Your task to perform on an android device: Add panasonic triple a to the cart on bestbuy, then select checkout. Image 0: 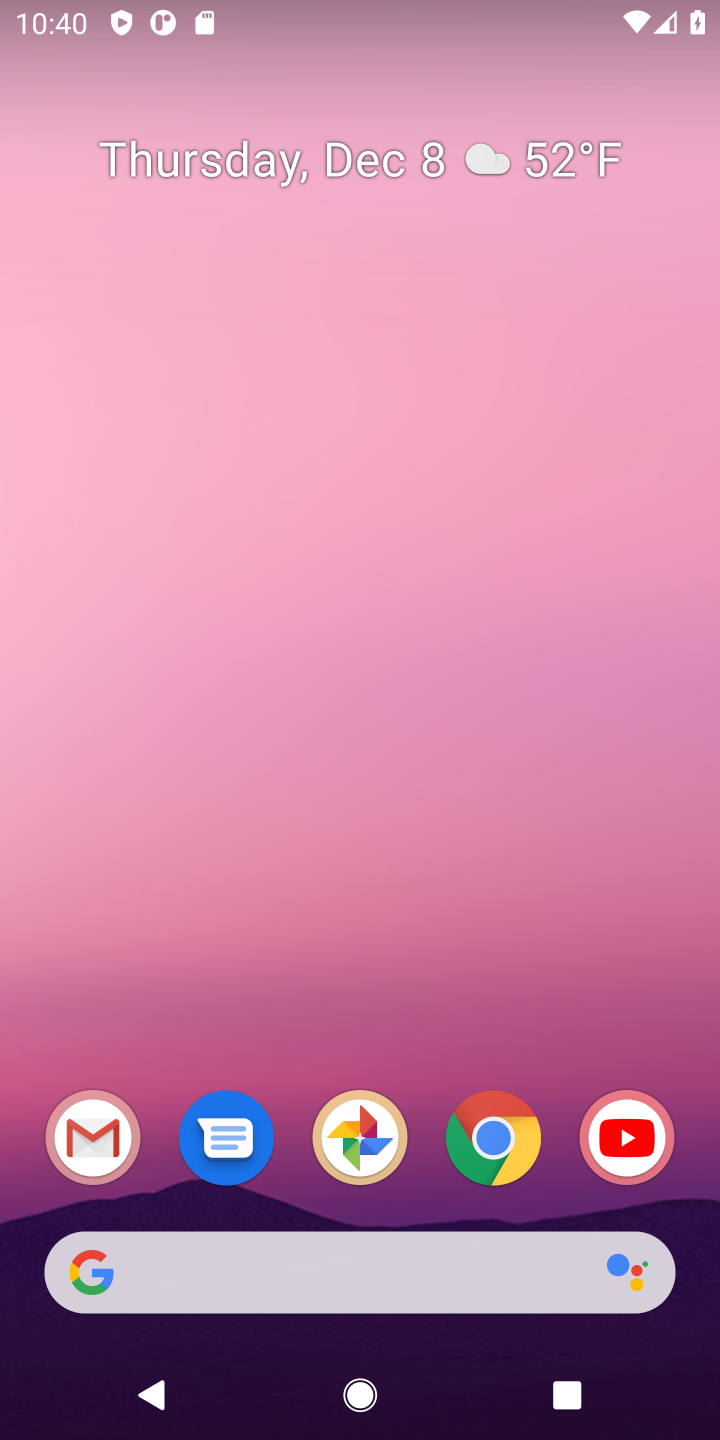
Step 0: click (502, 1135)
Your task to perform on an android device: Add panasonic triple a to the cart on bestbuy, then select checkout. Image 1: 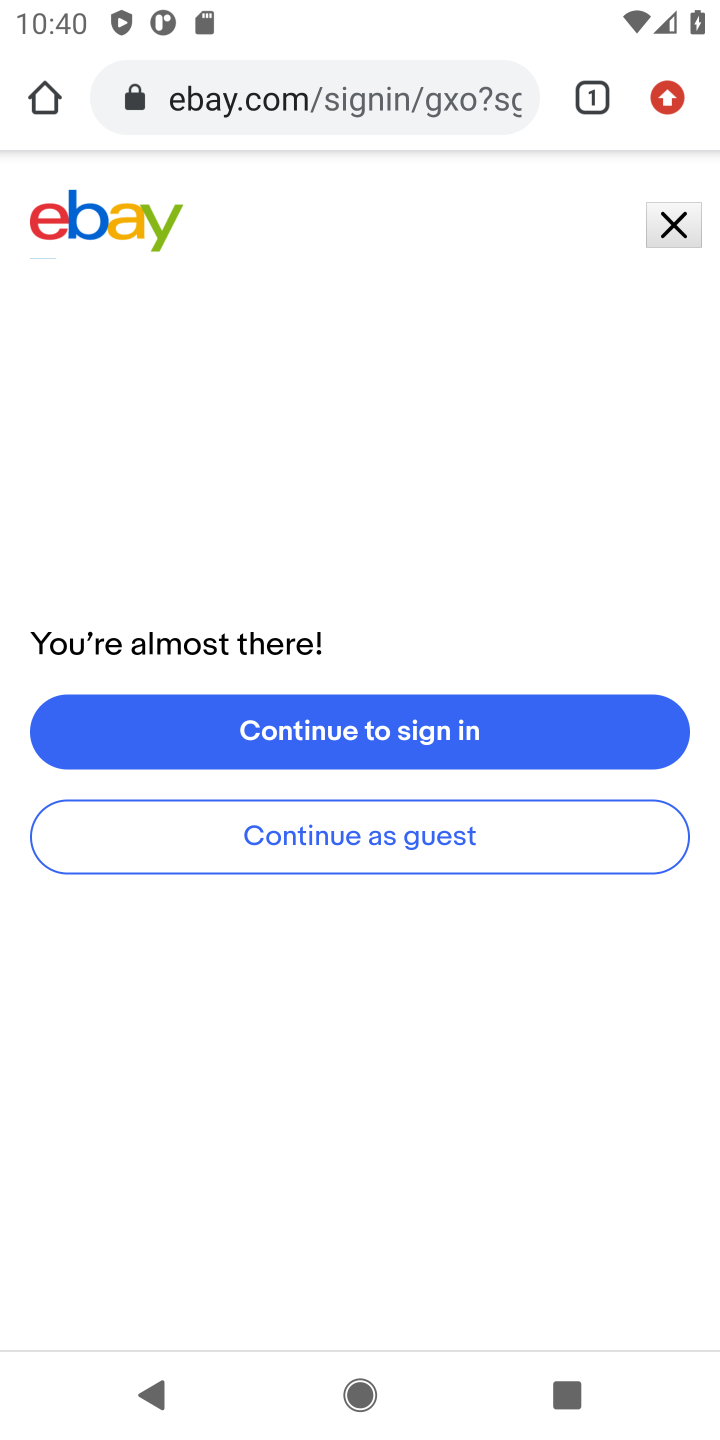
Step 1: click (339, 93)
Your task to perform on an android device: Add panasonic triple a to the cart on bestbuy, then select checkout. Image 2: 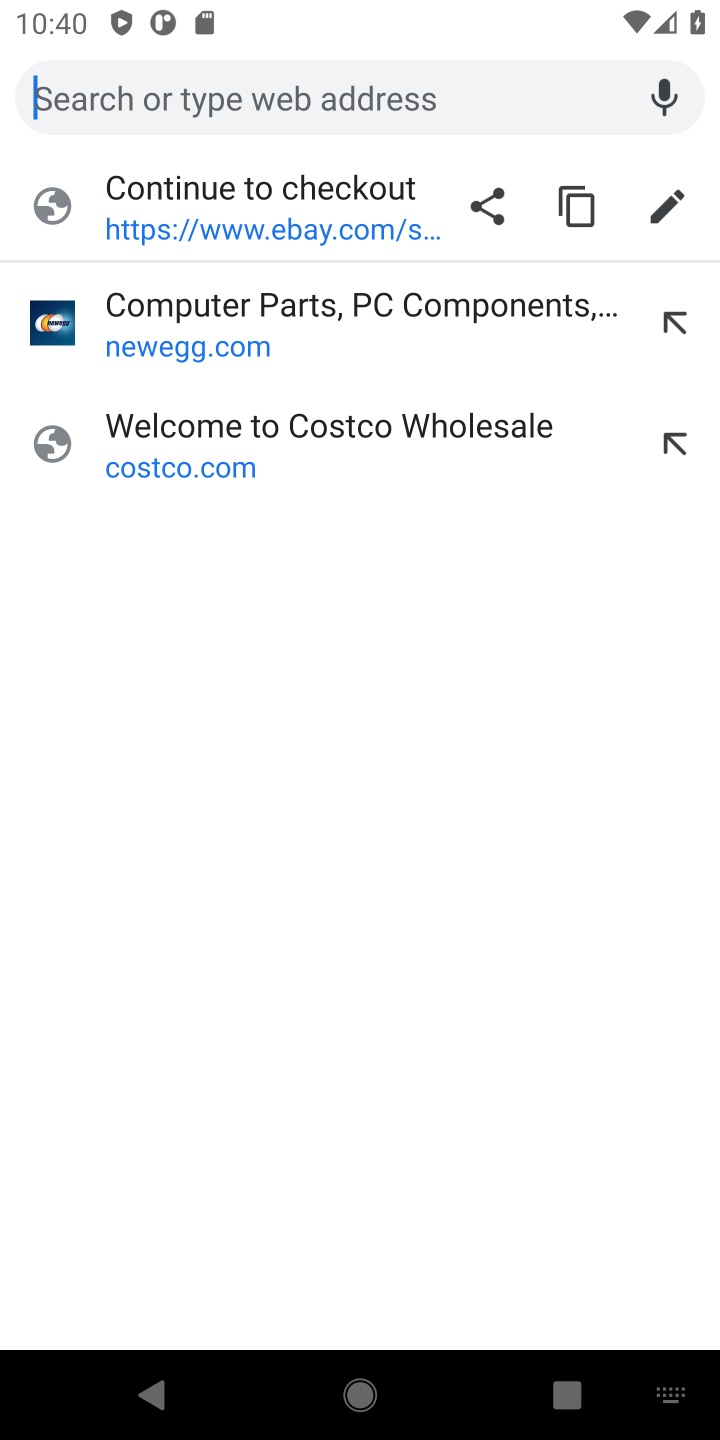
Step 2: type "bestbuy"
Your task to perform on an android device: Add panasonic triple a to the cart on bestbuy, then select checkout. Image 3: 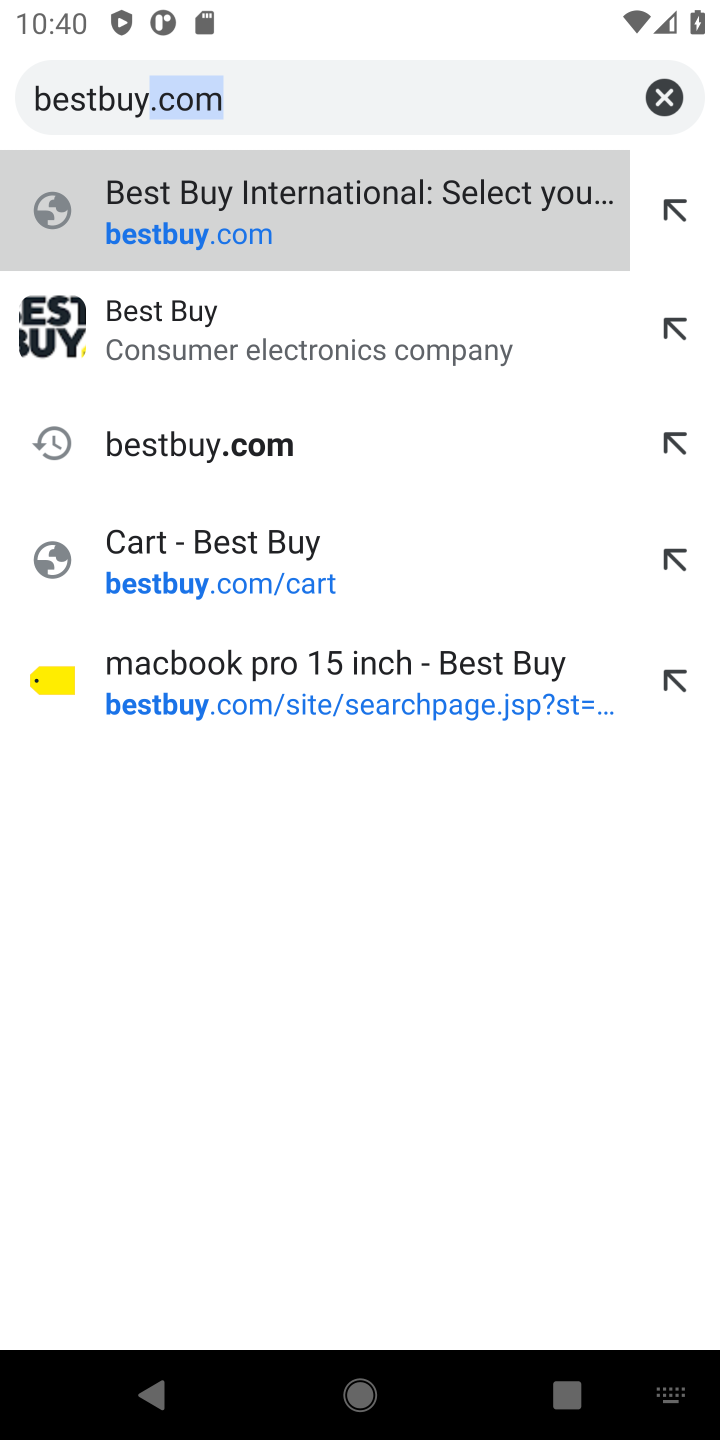
Step 3: press enter
Your task to perform on an android device: Add panasonic triple a to the cart on bestbuy, then select checkout. Image 4: 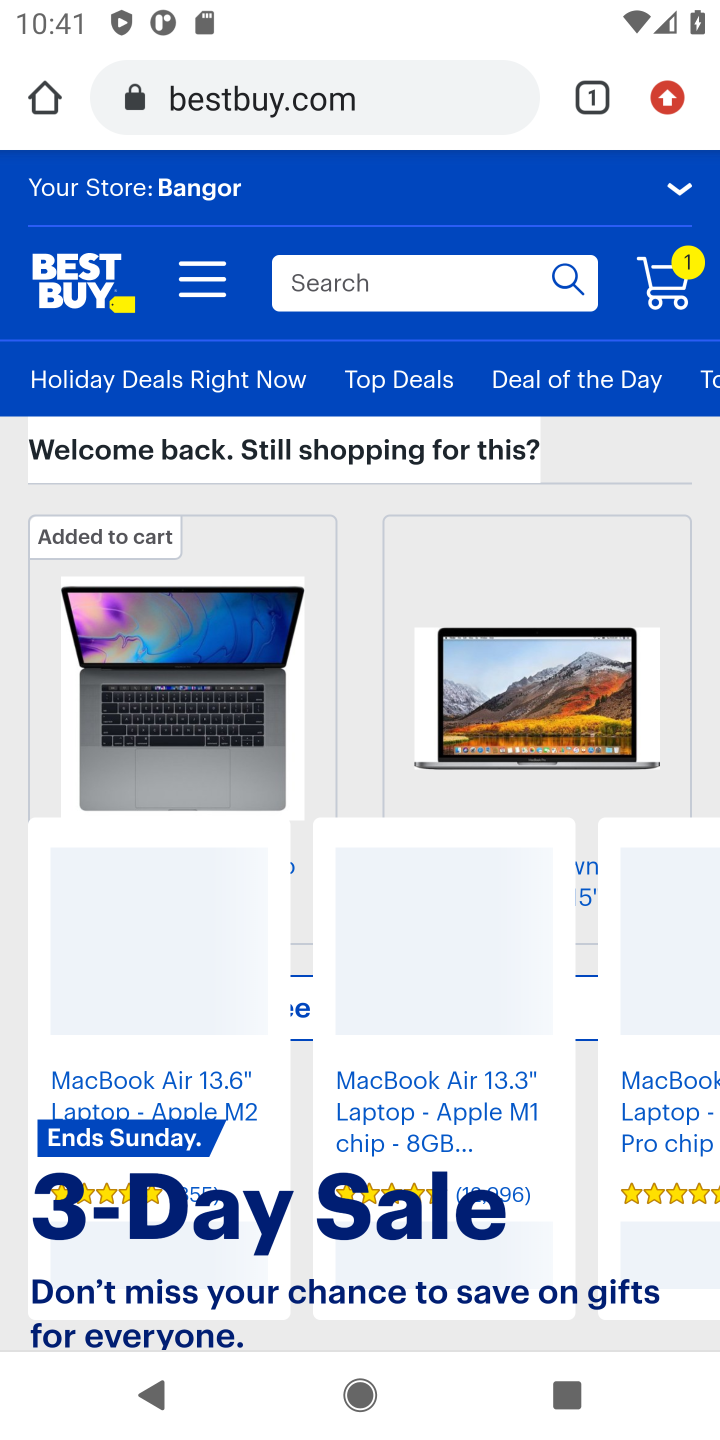
Step 4: click (553, 282)
Your task to perform on an android device: Add panasonic triple a to the cart on bestbuy, then select checkout. Image 5: 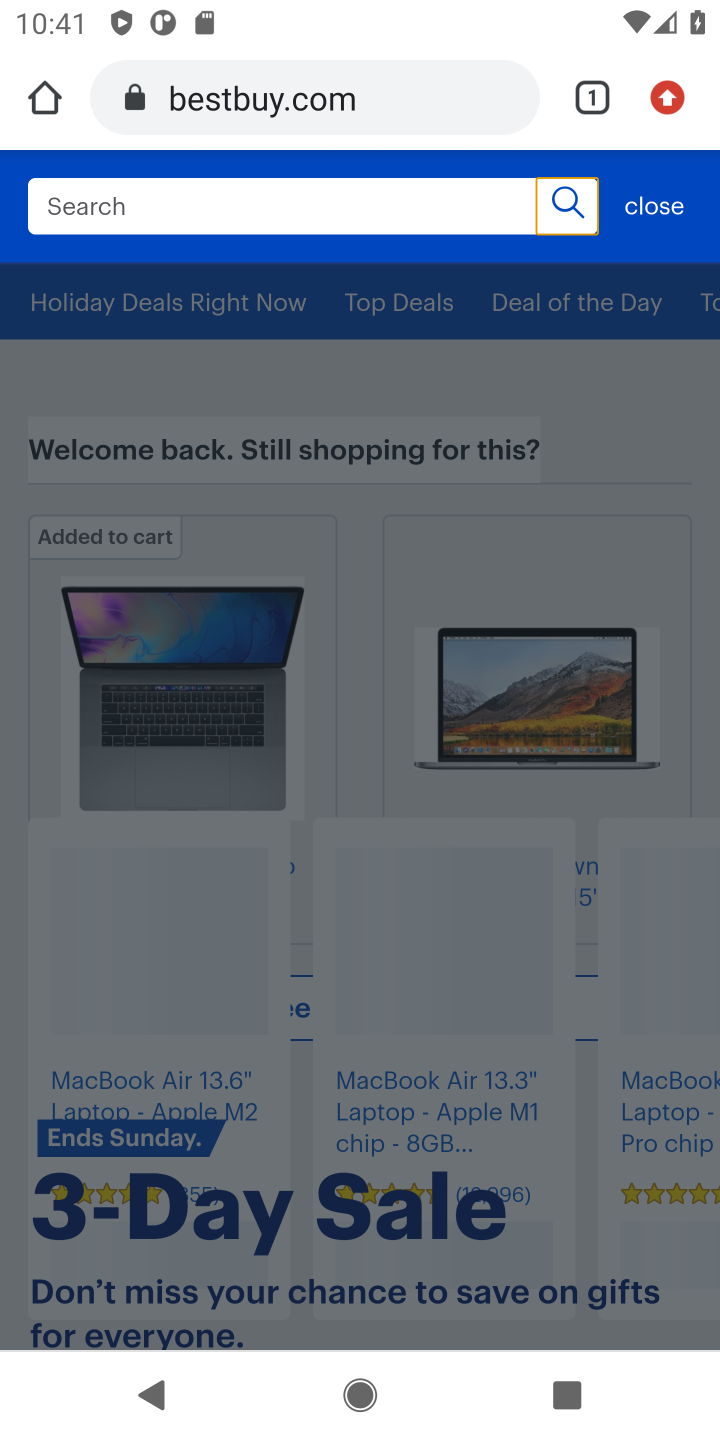
Step 5: press enter
Your task to perform on an android device: Add panasonic triple a to the cart on bestbuy, then select checkout. Image 6: 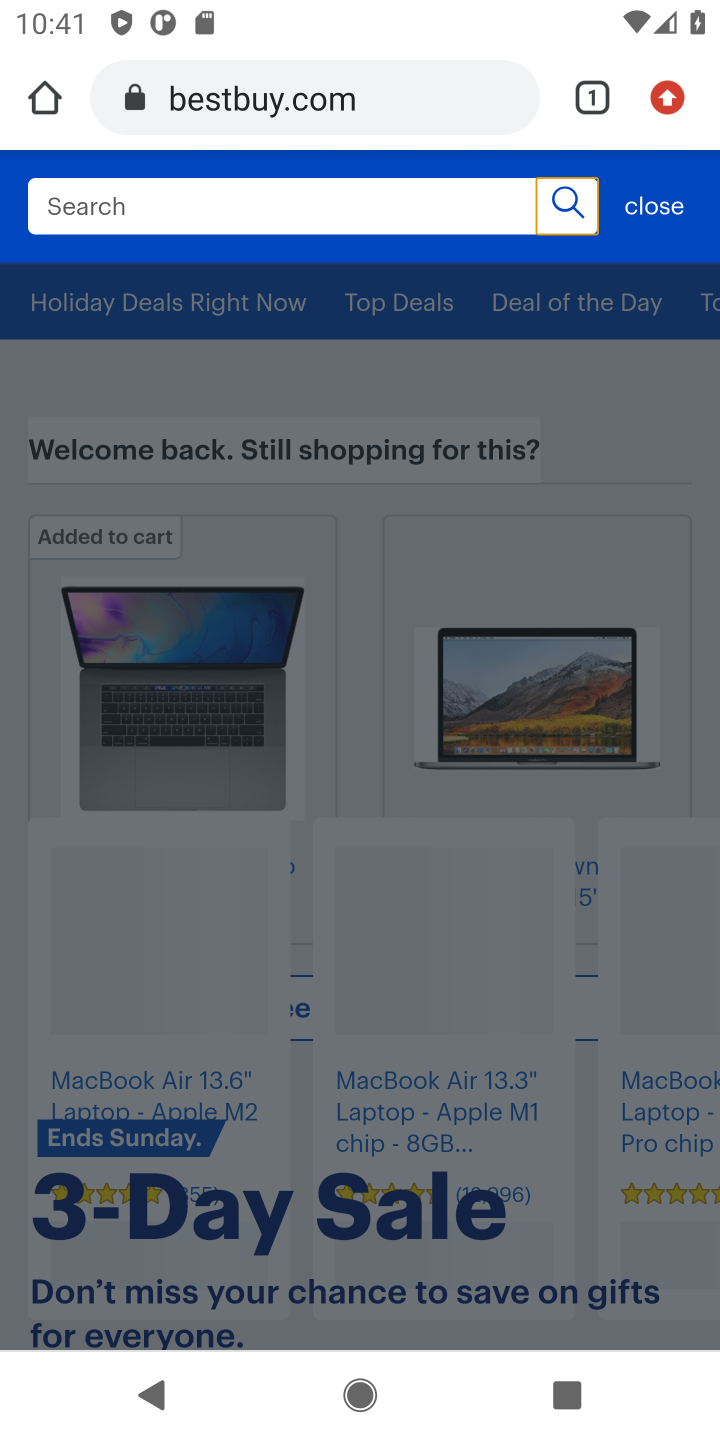
Step 6: type "panasonic triple a"
Your task to perform on an android device: Add panasonic triple a to the cart on bestbuy, then select checkout. Image 7: 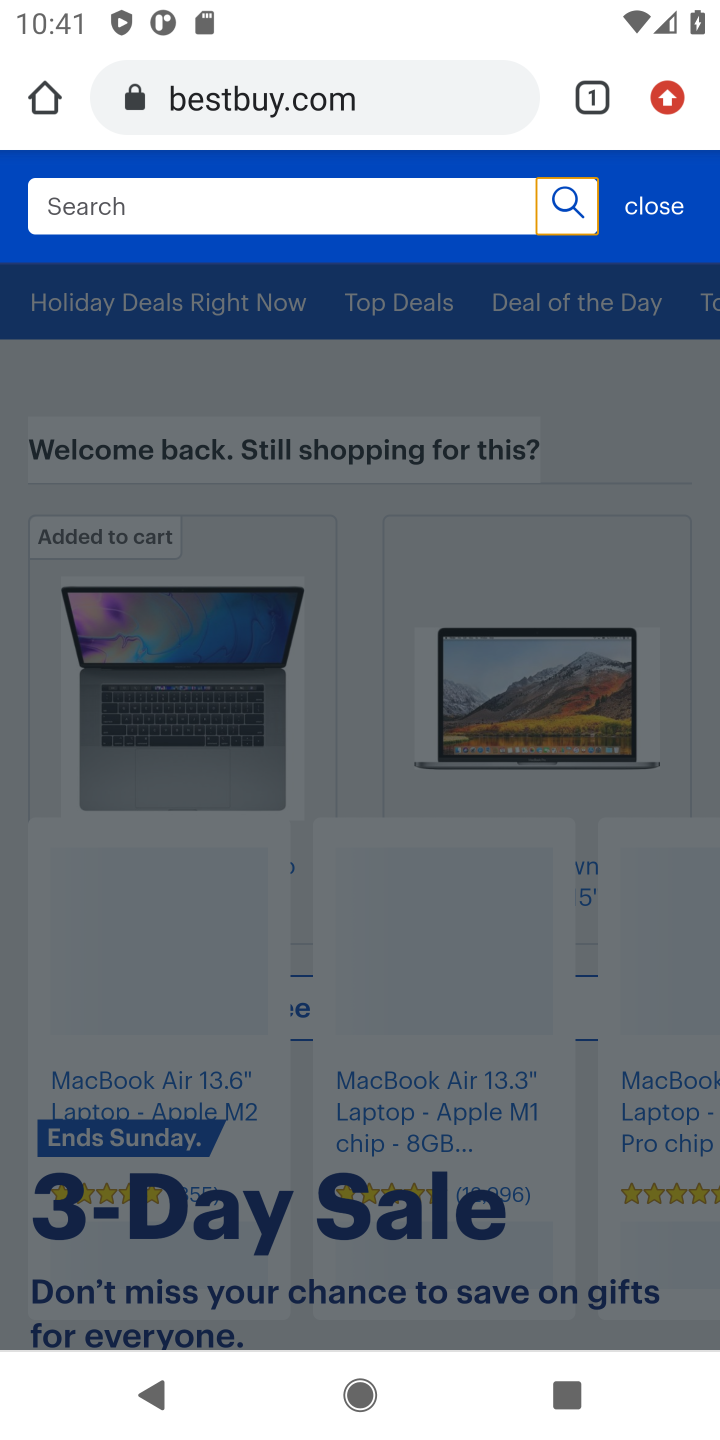
Step 7: click (379, 212)
Your task to perform on an android device: Add panasonic triple a to the cart on bestbuy, then select checkout. Image 8: 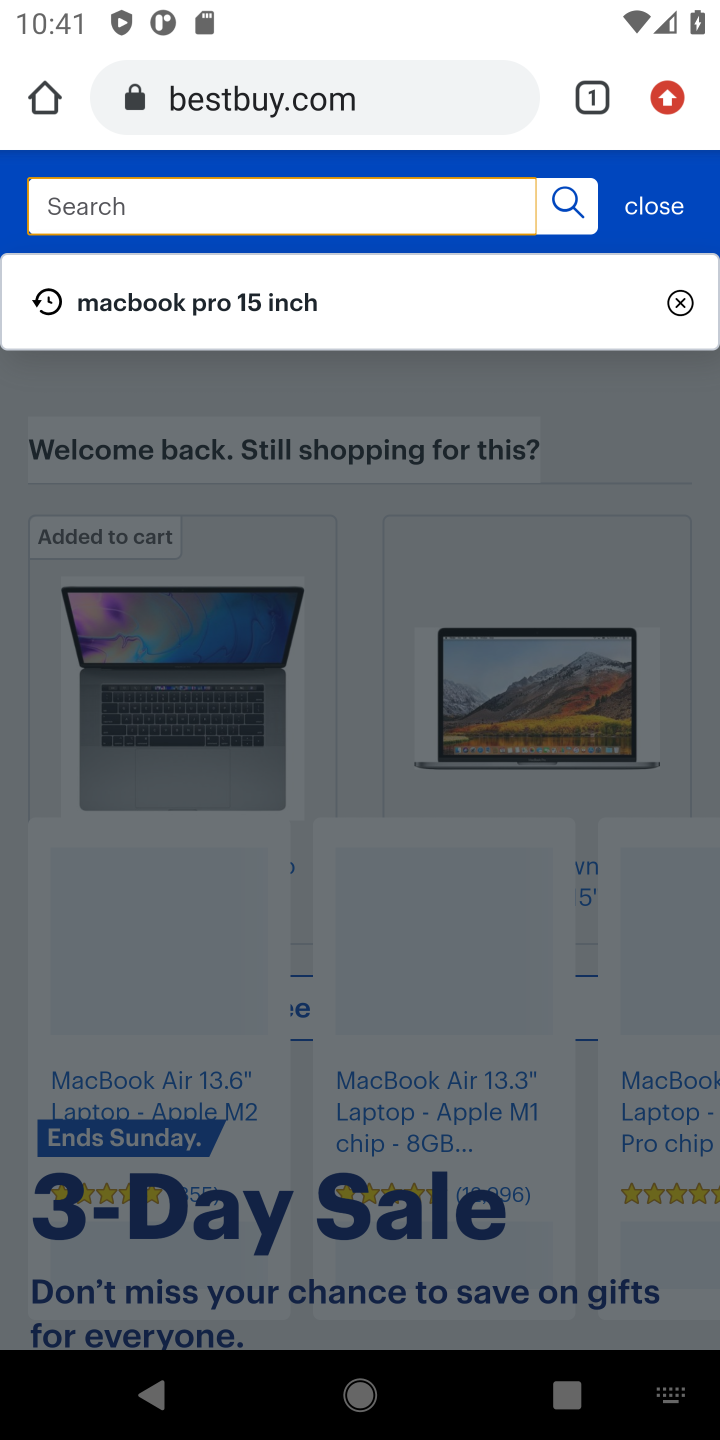
Step 8: type "panasonic triple a"
Your task to perform on an android device: Add panasonic triple a to the cart on bestbuy, then select checkout. Image 9: 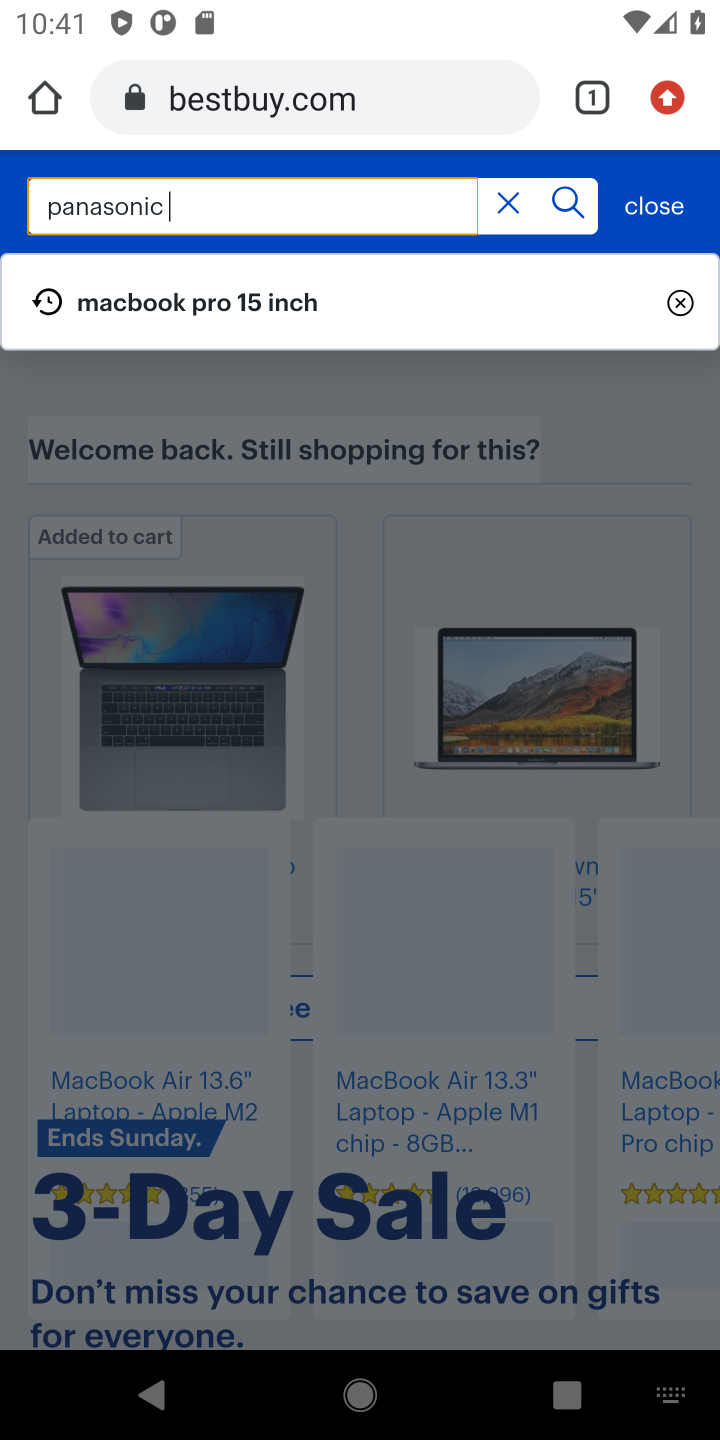
Step 9: press enter
Your task to perform on an android device: Add panasonic triple a to the cart on bestbuy, then select checkout. Image 10: 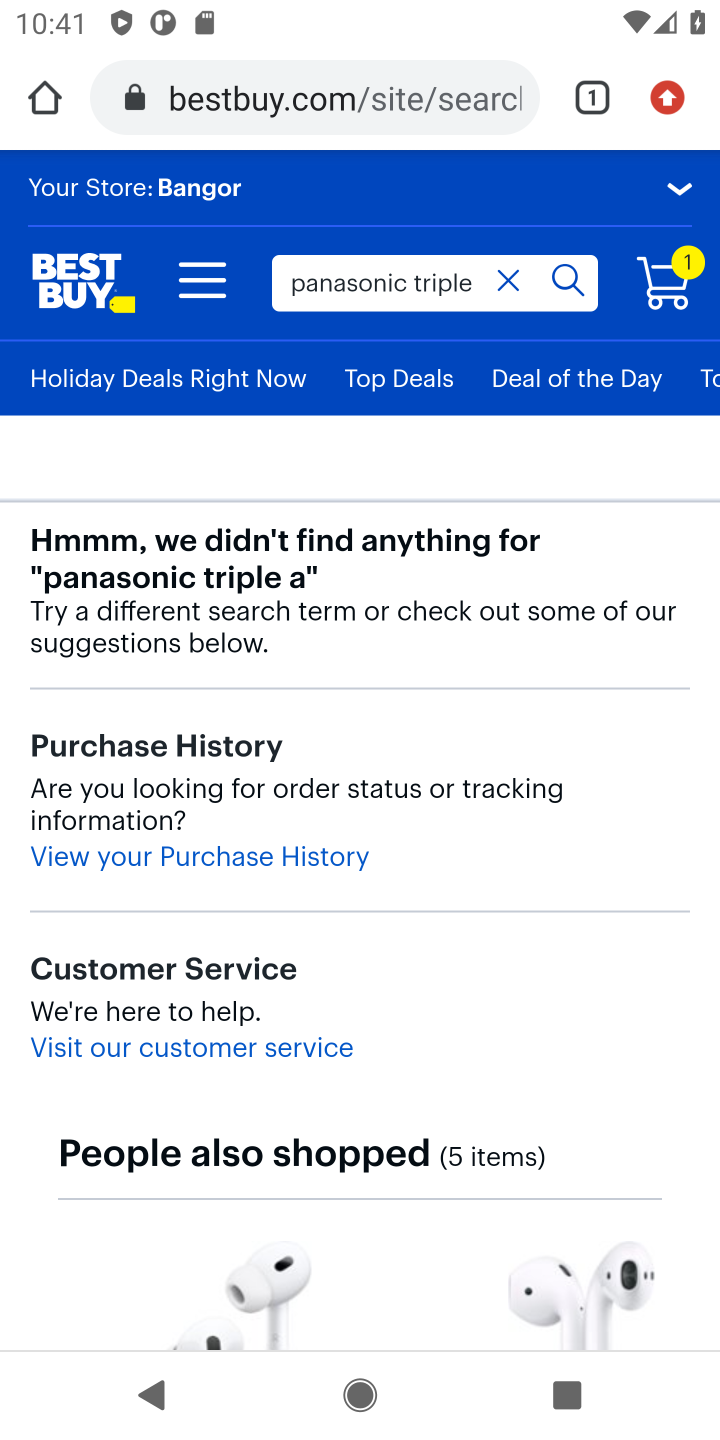
Step 10: click (506, 280)
Your task to perform on an android device: Add panasonic triple a to the cart on bestbuy, then select checkout. Image 11: 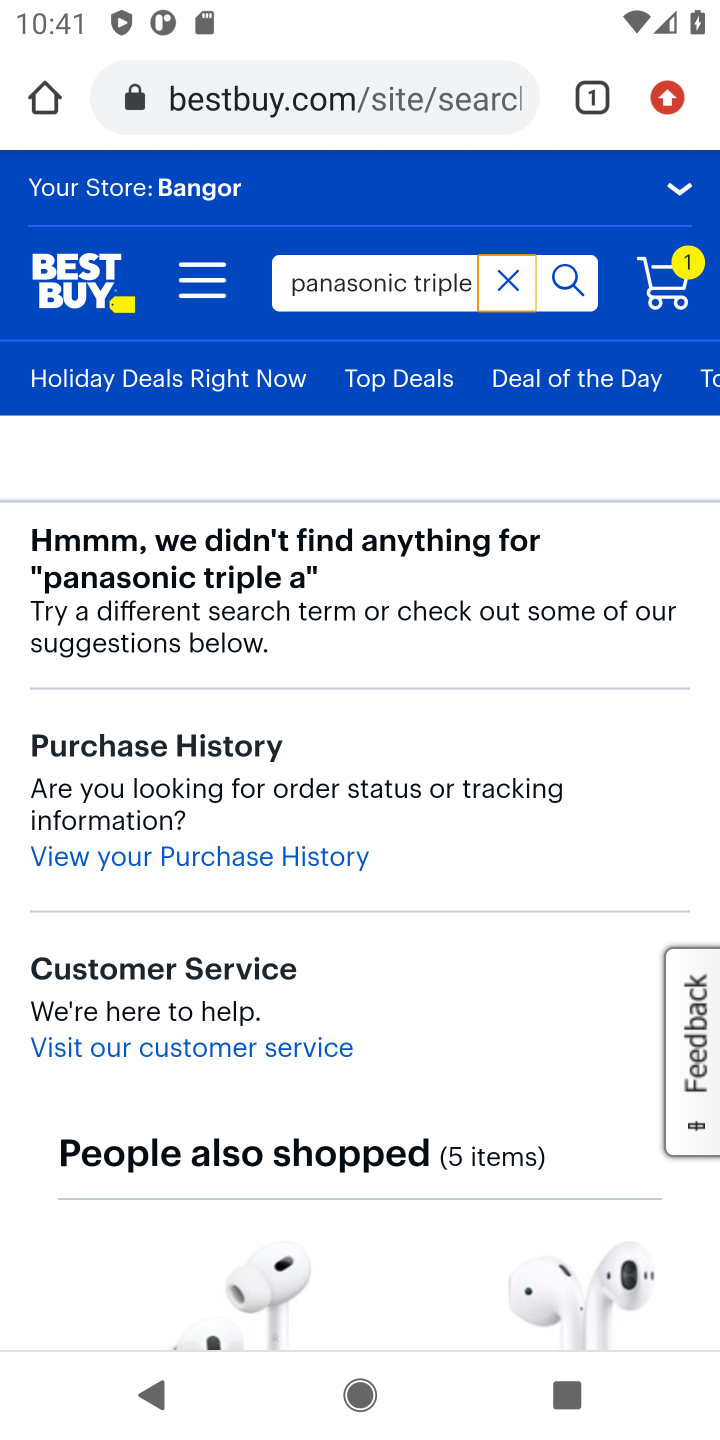
Step 11: click (506, 280)
Your task to perform on an android device: Add panasonic triple a to the cart on bestbuy, then select checkout. Image 12: 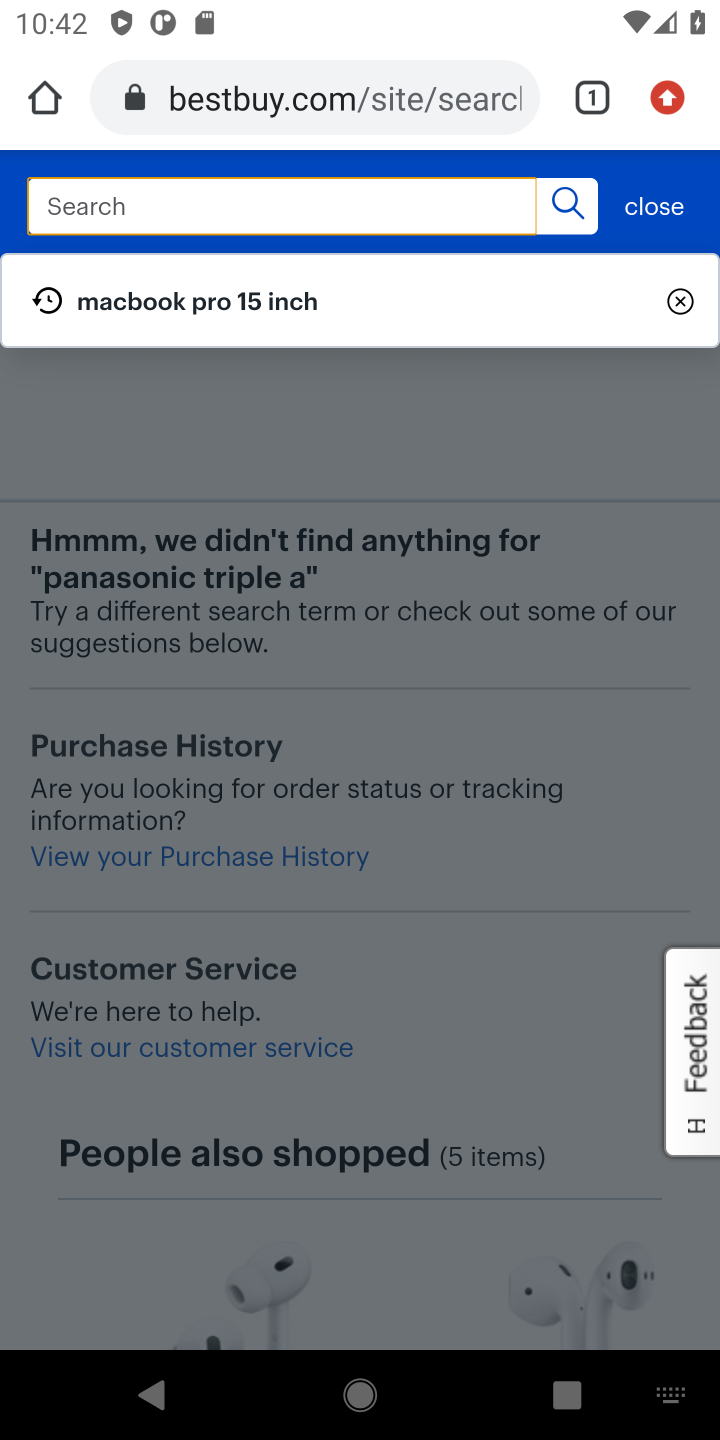
Step 12: press enter
Your task to perform on an android device: Add panasonic triple a to the cart on bestbuy, then select checkout. Image 13: 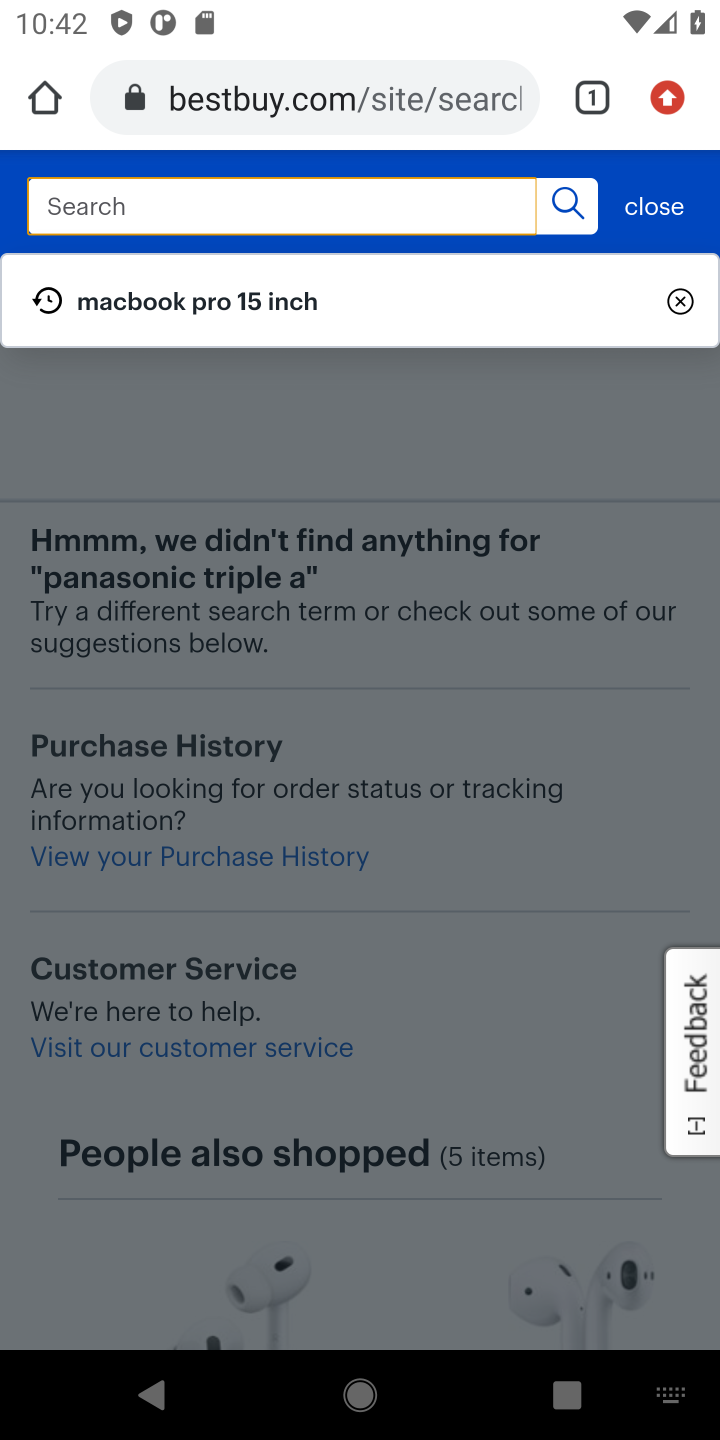
Step 13: type "panasonic triple a"
Your task to perform on an android device: Add panasonic triple a to the cart on bestbuy, then select checkout. Image 14: 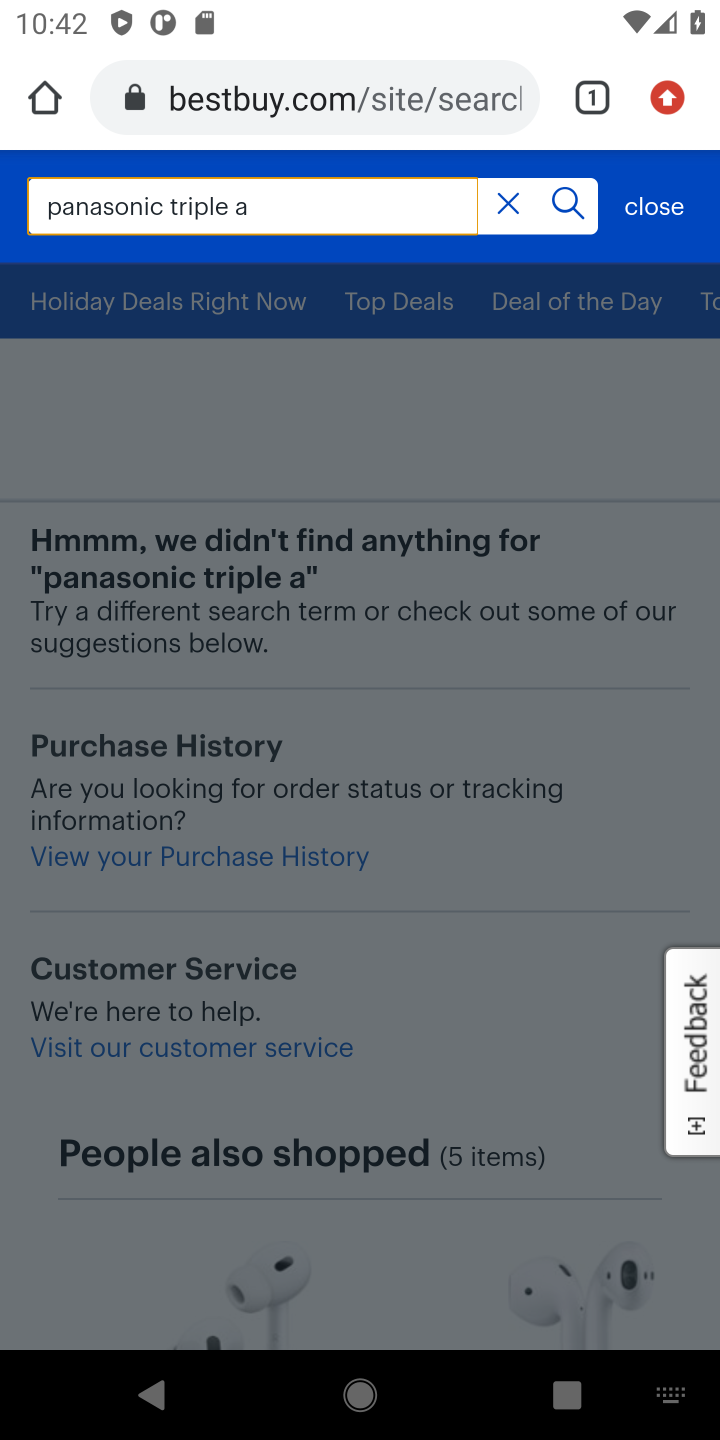
Step 14: click (578, 212)
Your task to perform on an android device: Add panasonic triple a to the cart on bestbuy, then select checkout. Image 15: 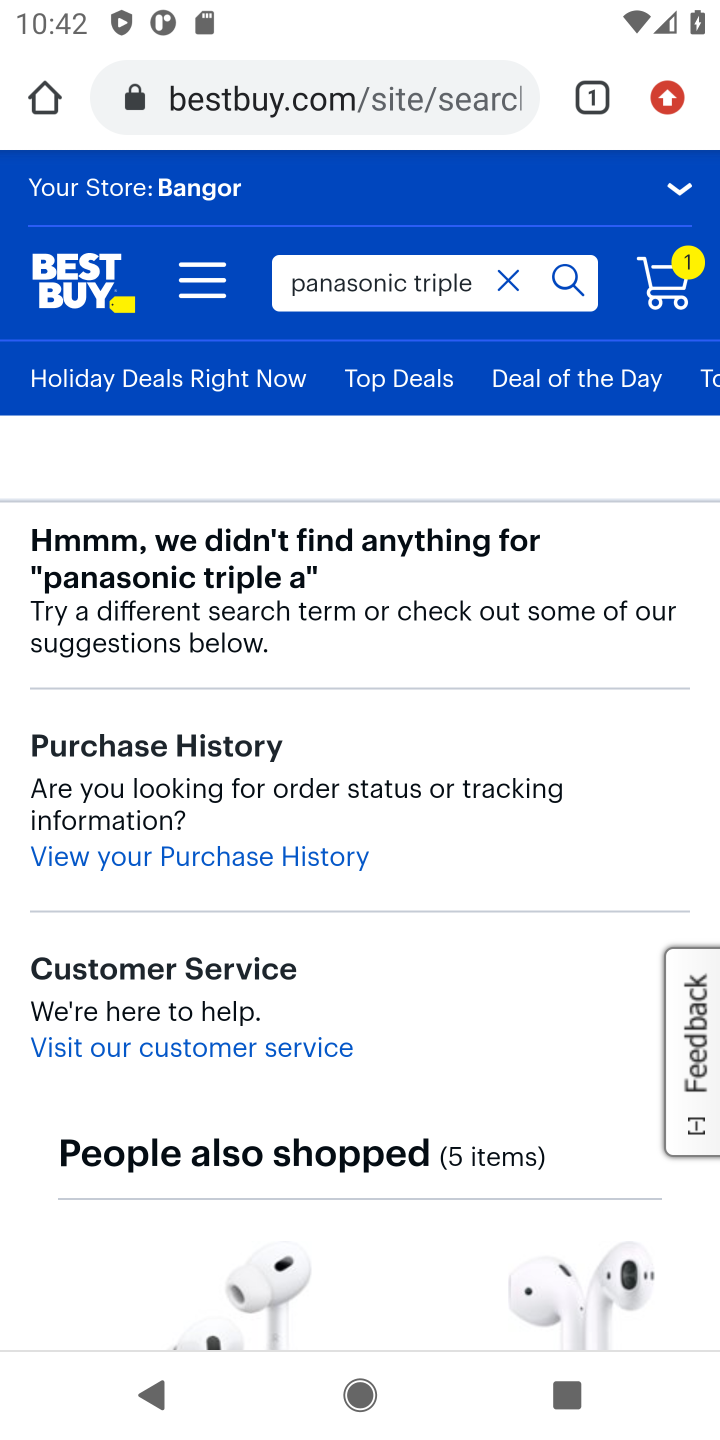
Step 15: task complete